Your task to perform on an android device: Search for "alienware area 51" on costco, select the first entry, add it to the cart, then select checkout. Image 0: 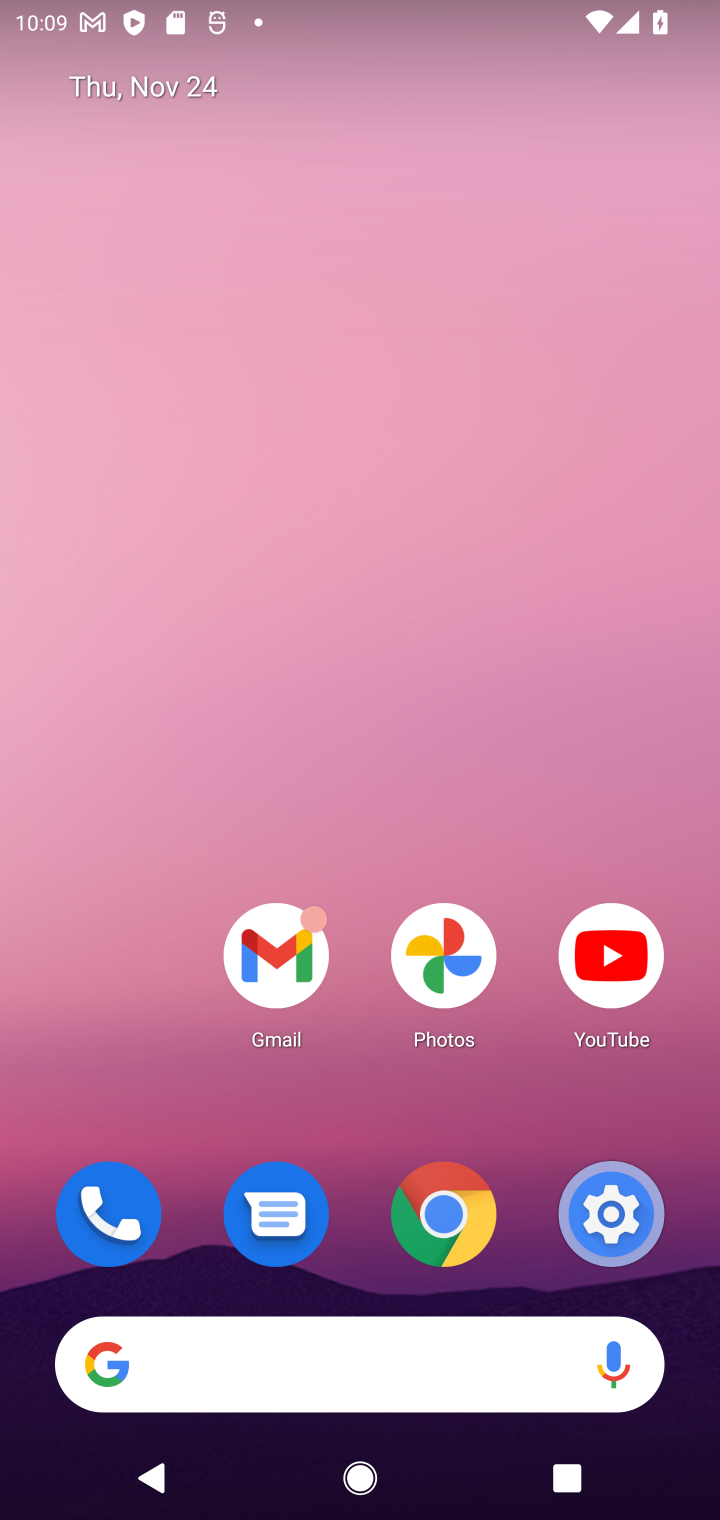
Step 0: click (207, 1359)
Your task to perform on an android device: Search for "alienware area 51" on costco, select the first entry, add it to the cart, then select checkout. Image 1: 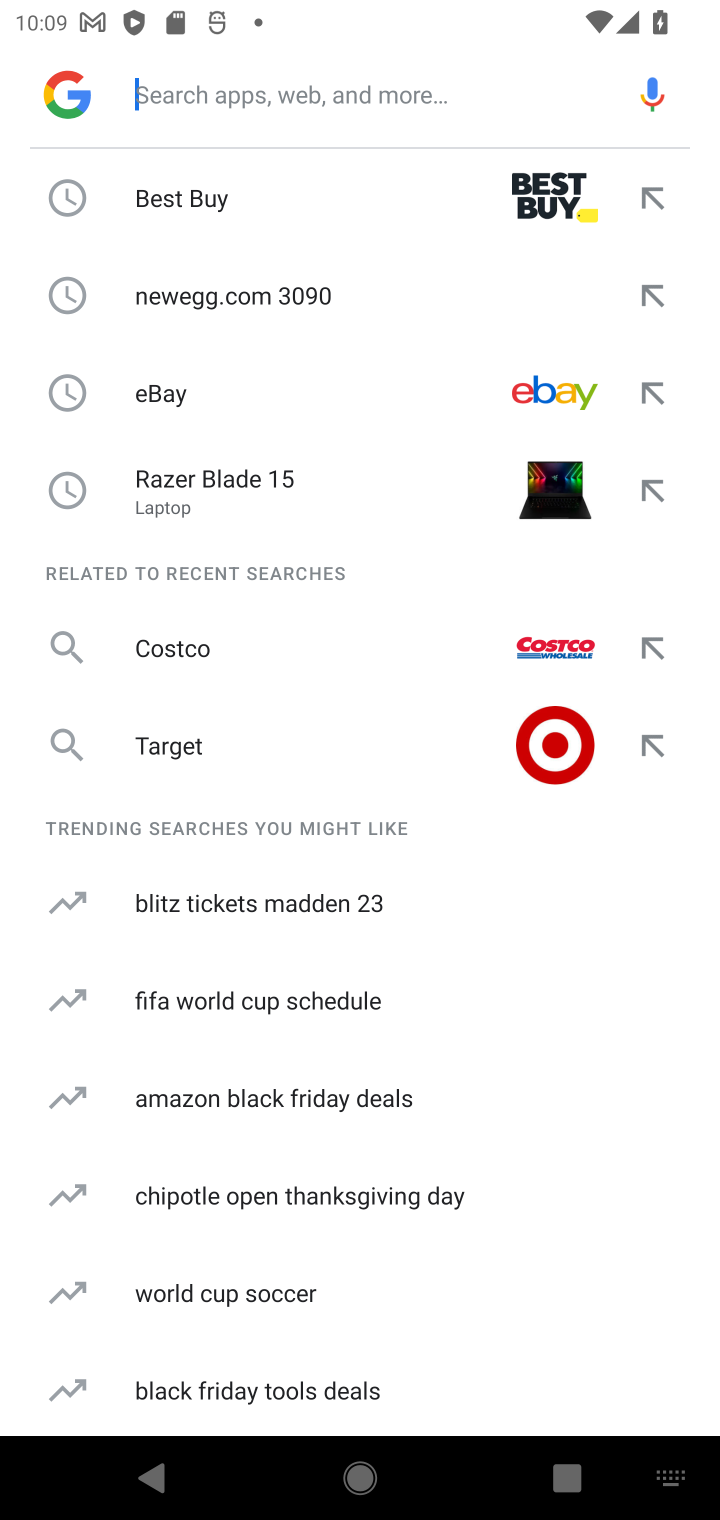
Step 1: type "costco.com"
Your task to perform on an android device: Search for "alienware area 51" on costco, select the first entry, add it to the cart, then select checkout. Image 2: 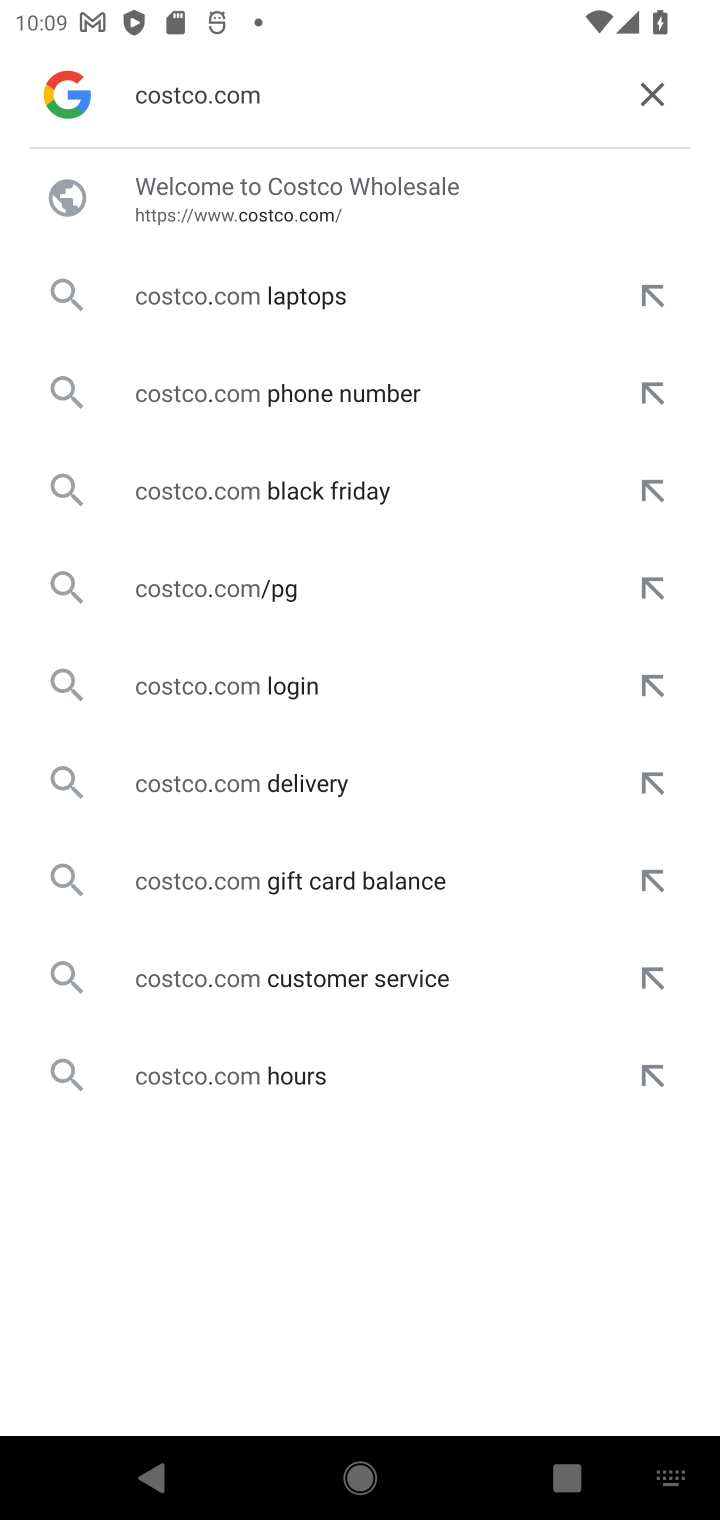
Step 2: click (268, 223)
Your task to perform on an android device: Search for "alienware area 51" on costco, select the first entry, add it to the cart, then select checkout. Image 3: 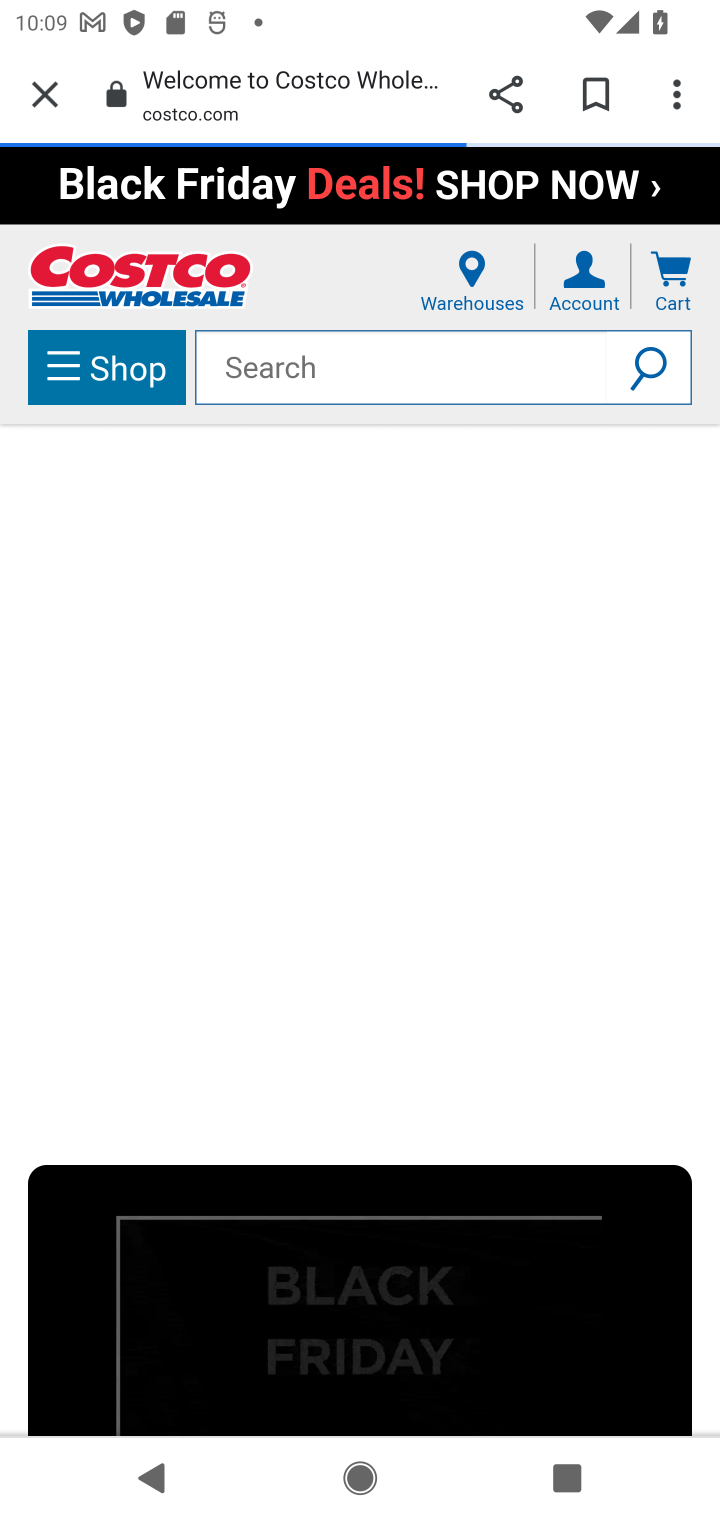
Step 3: click (268, 383)
Your task to perform on an android device: Search for "alienware area 51" on costco, select the first entry, add it to the cart, then select checkout. Image 4: 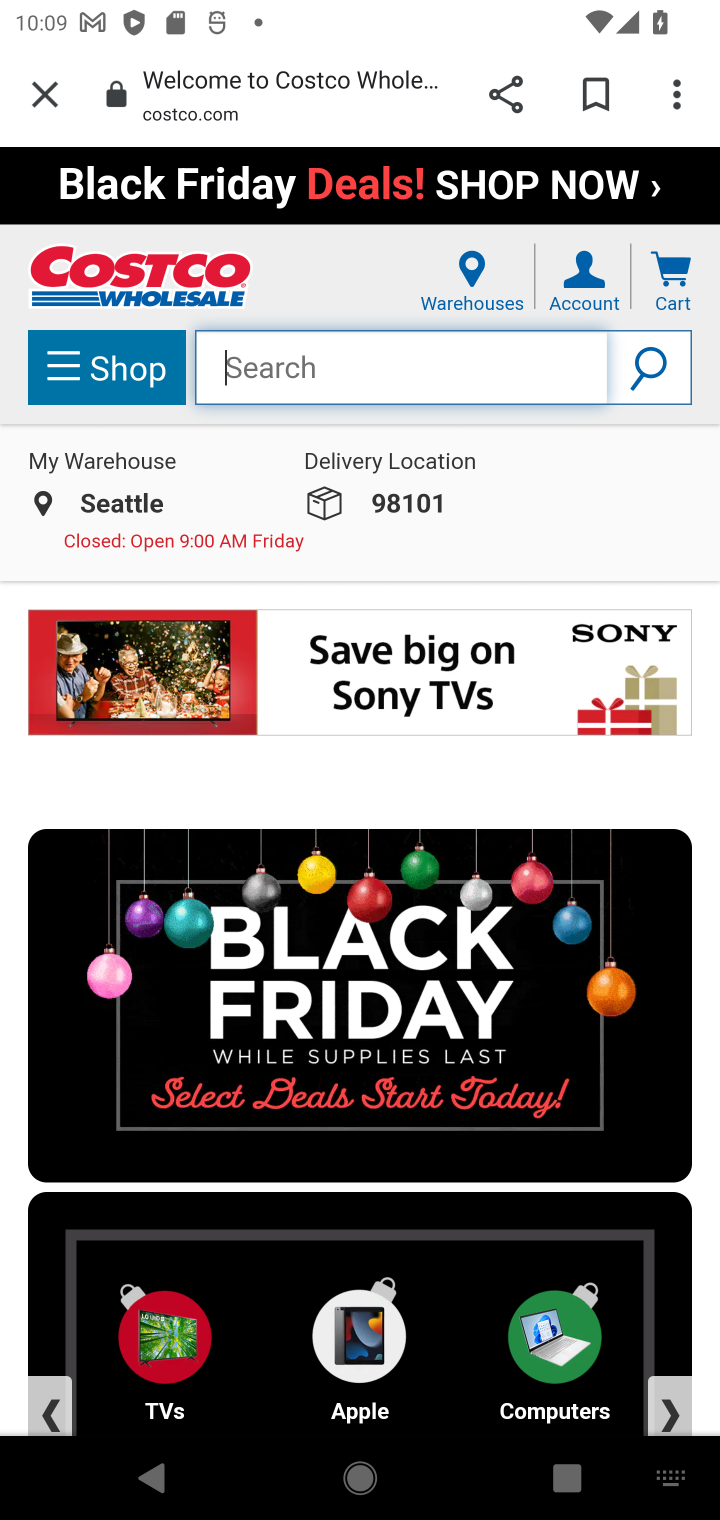
Step 4: type "alienware area 51"
Your task to perform on an android device: Search for "alienware area 51" on costco, select the first entry, add it to the cart, then select checkout. Image 5: 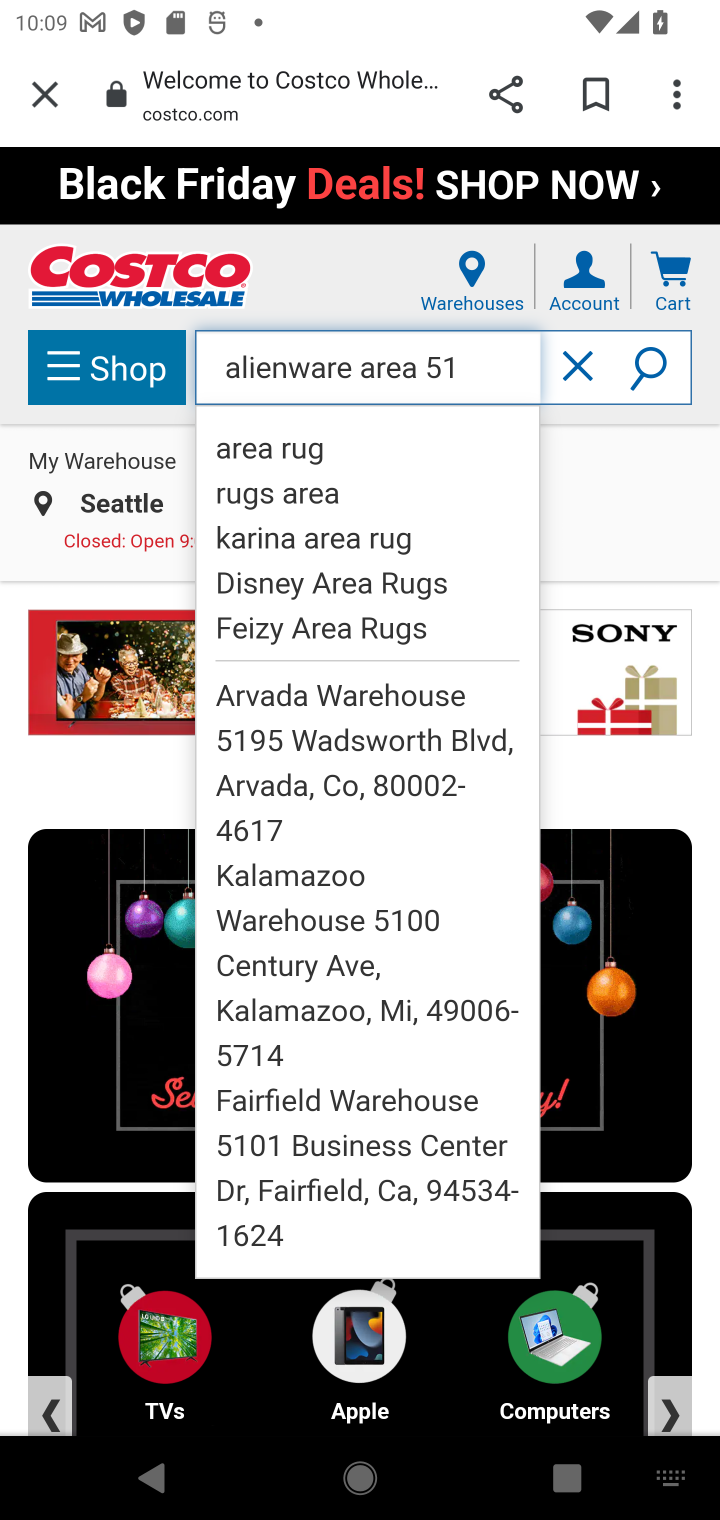
Step 5: click (657, 371)
Your task to perform on an android device: Search for "alienware area 51" on costco, select the first entry, add it to the cart, then select checkout. Image 6: 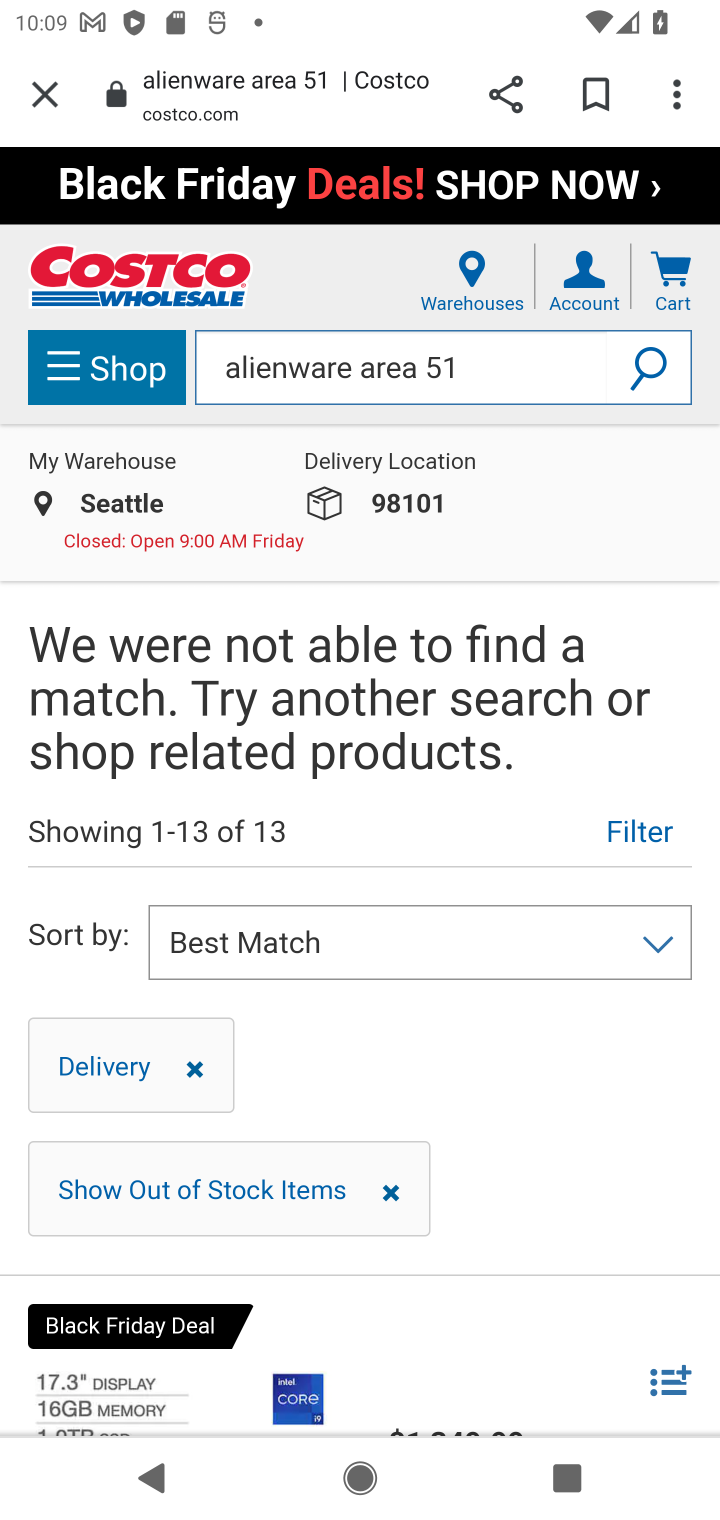
Step 6: click (397, 1196)
Your task to perform on an android device: Search for "alienware area 51" on costco, select the first entry, add it to the cart, then select checkout. Image 7: 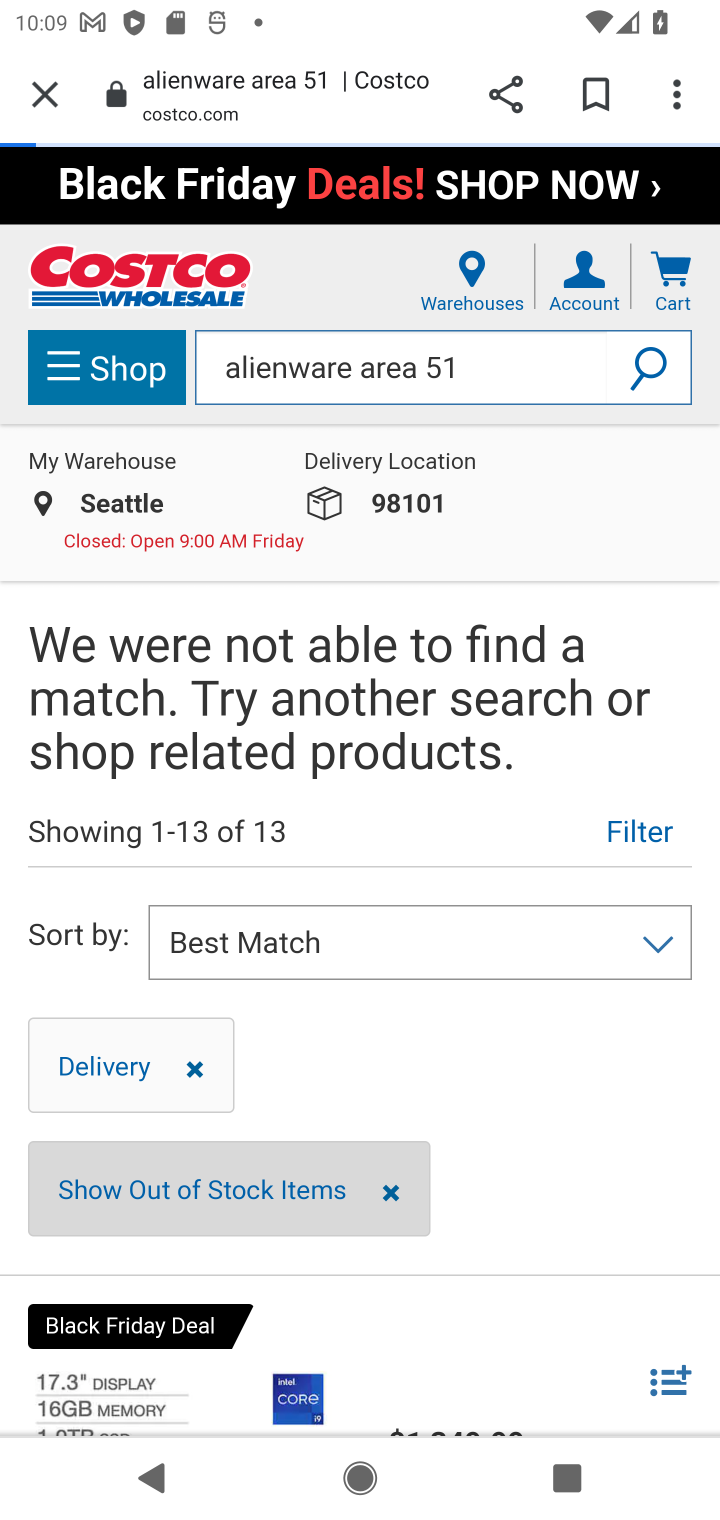
Step 7: click (202, 1075)
Your task to perform on an android device: Search for "alienware area 51" on costco, select the first entry, add it to the cart, then select checkout. Image 8: 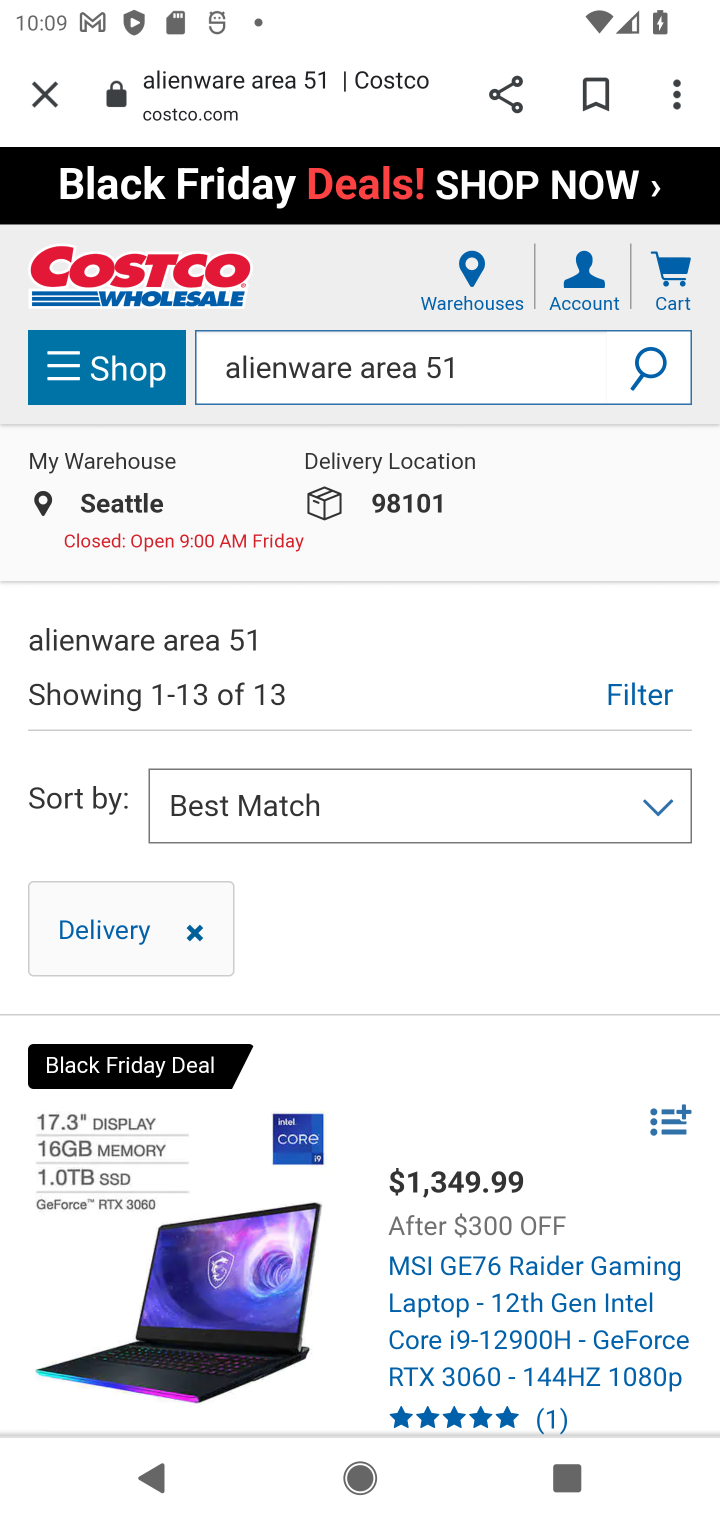
Step 8: click (327, 1262)
Your task to perform on an android device: Search for "alienware area 51" on costco, select the first entry, add it to the cart, then select checkout. Image 9: 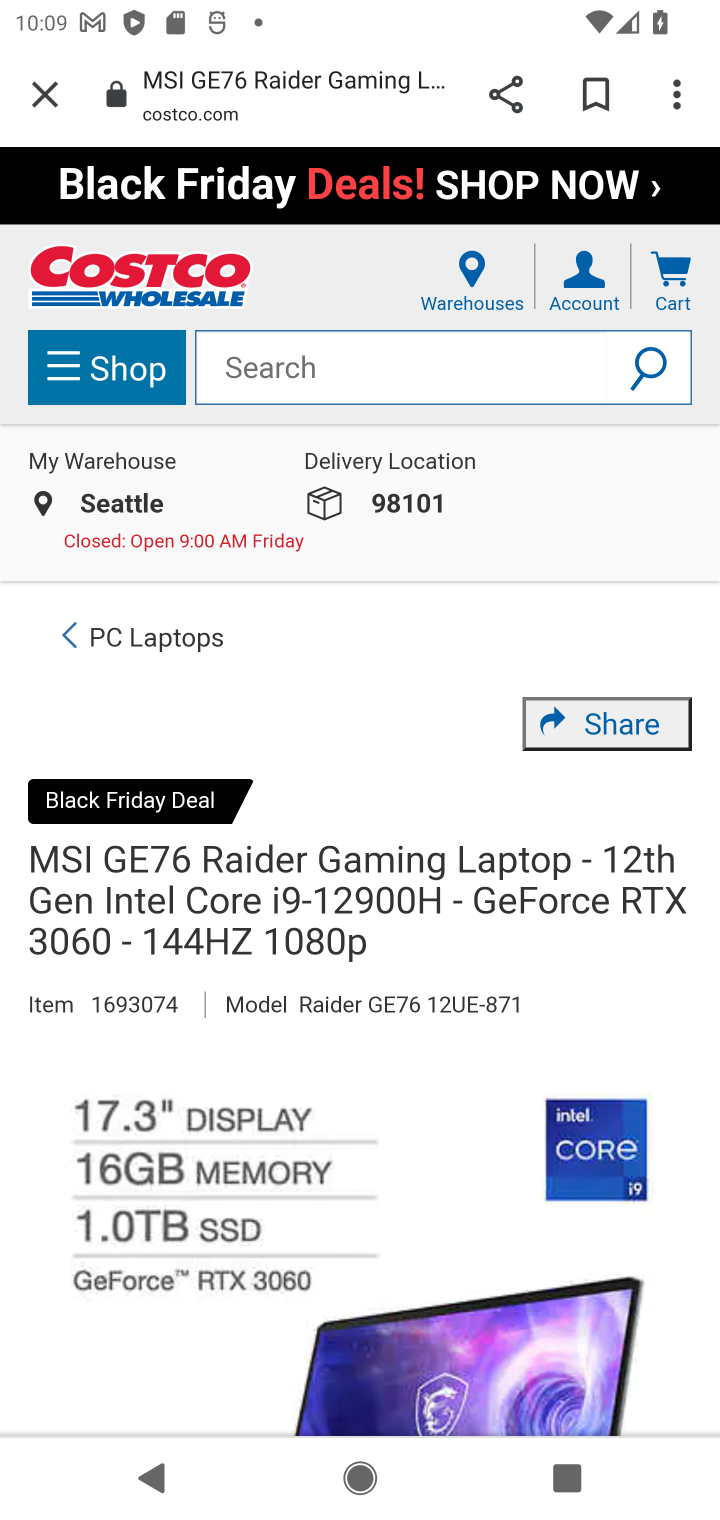
Step 9: drag from (431, 1113) to (410, 402)
Your task to perform on an android device: Search for "alienware area 51" on costco, select the first entry, add it to the cart, then select checkout. Image 10: 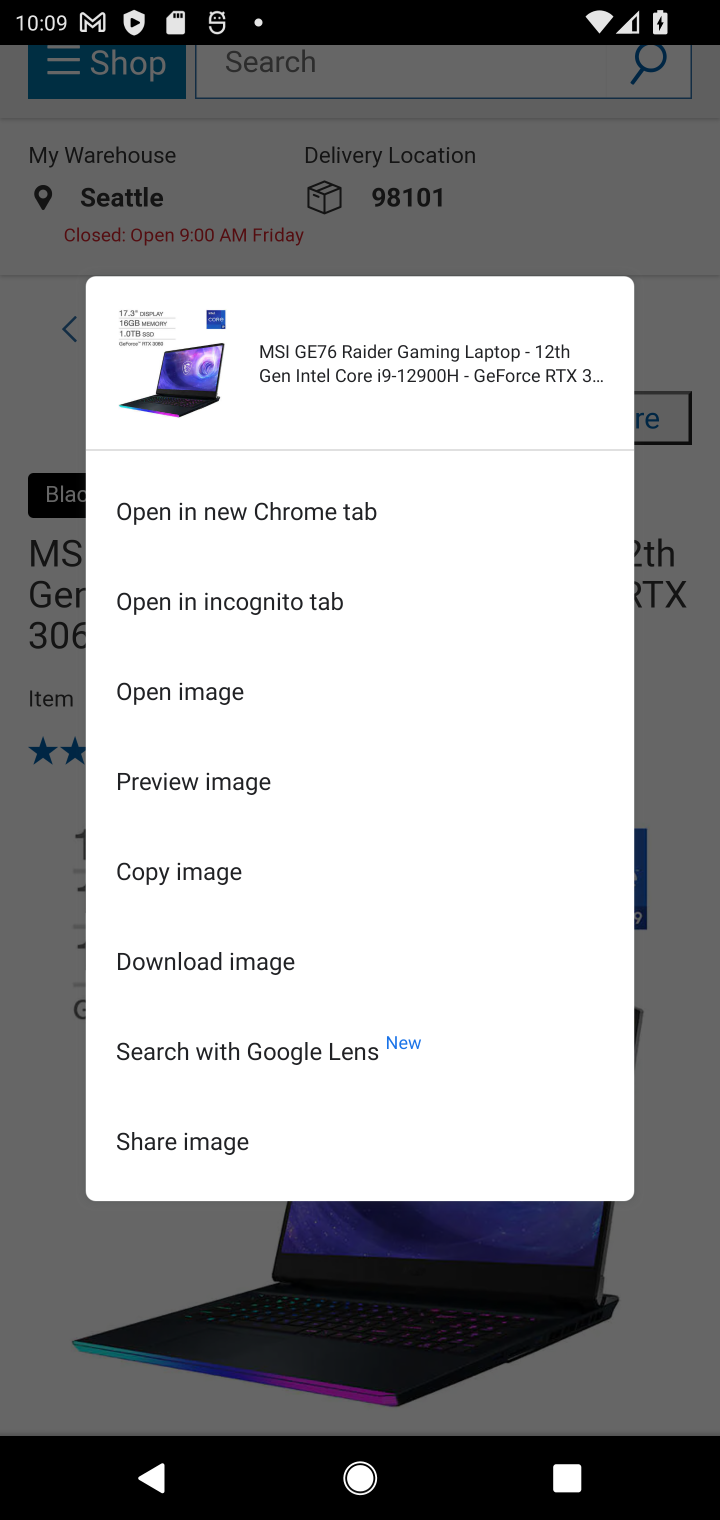
Step 10: click (709, 1081)
Your task to perform on an android device: Search for "alienware area 51" on costco, select the first entry, add it to the cart, then select checkout. Image 11: 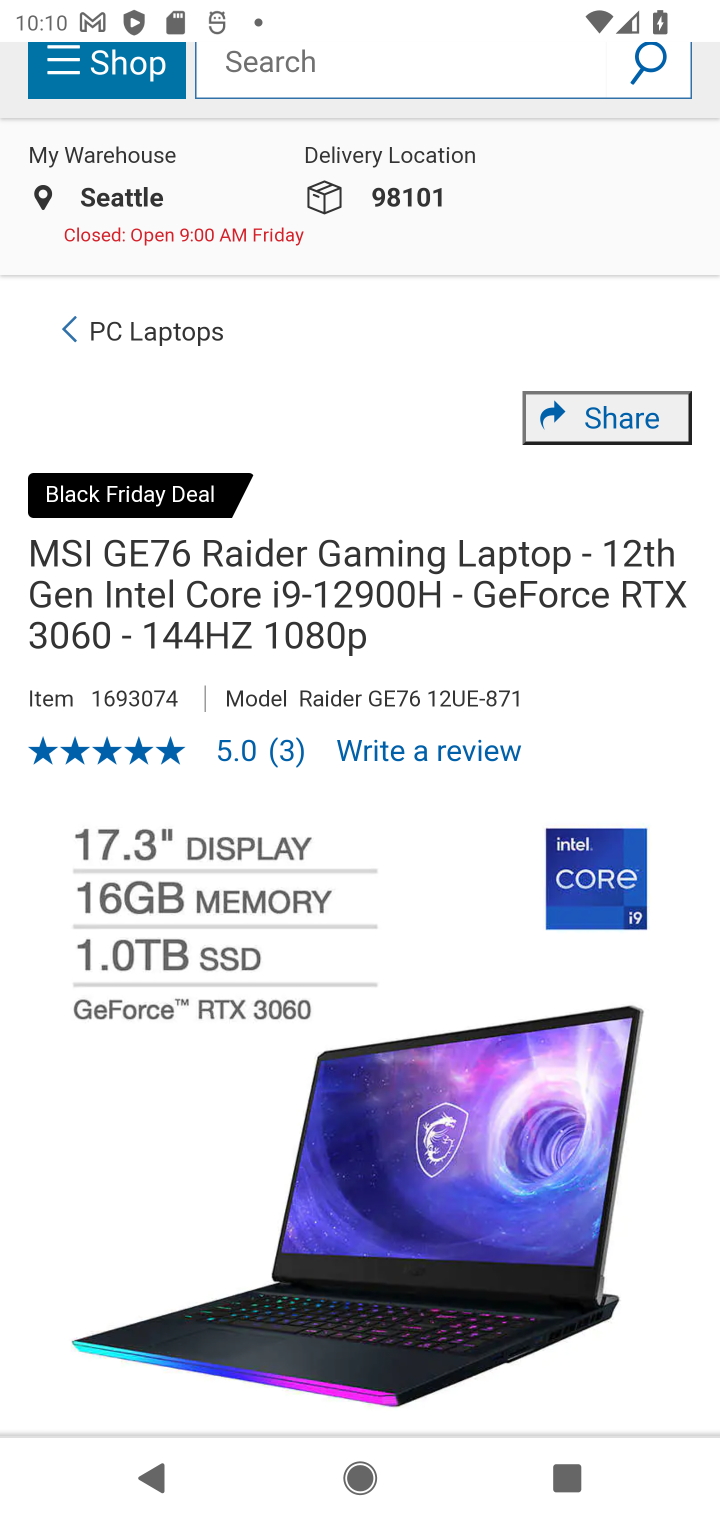
Step 11: drag from (526, 1294) to (435, 511)
Your task to perform on an android device: Search for "alienware area 51" on costco, select the first entry, add it to the cart, then select checkout. Image 12: 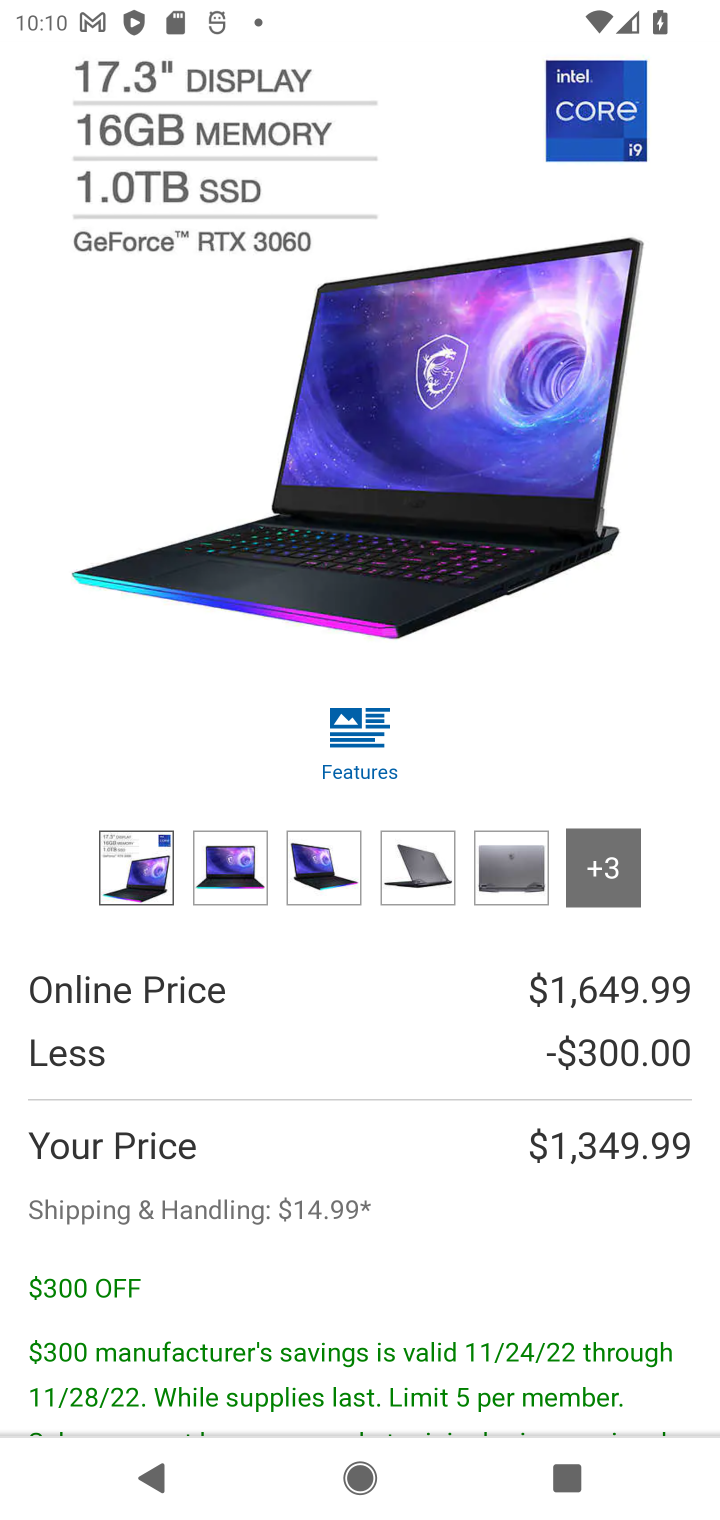
Step 12: drag from (407, 1180) to (424, 252)
Your task to perform on an android device: Search for "alienware area 51" on costco, select the first entry, add it to the cart, then select checkout. Image 13: 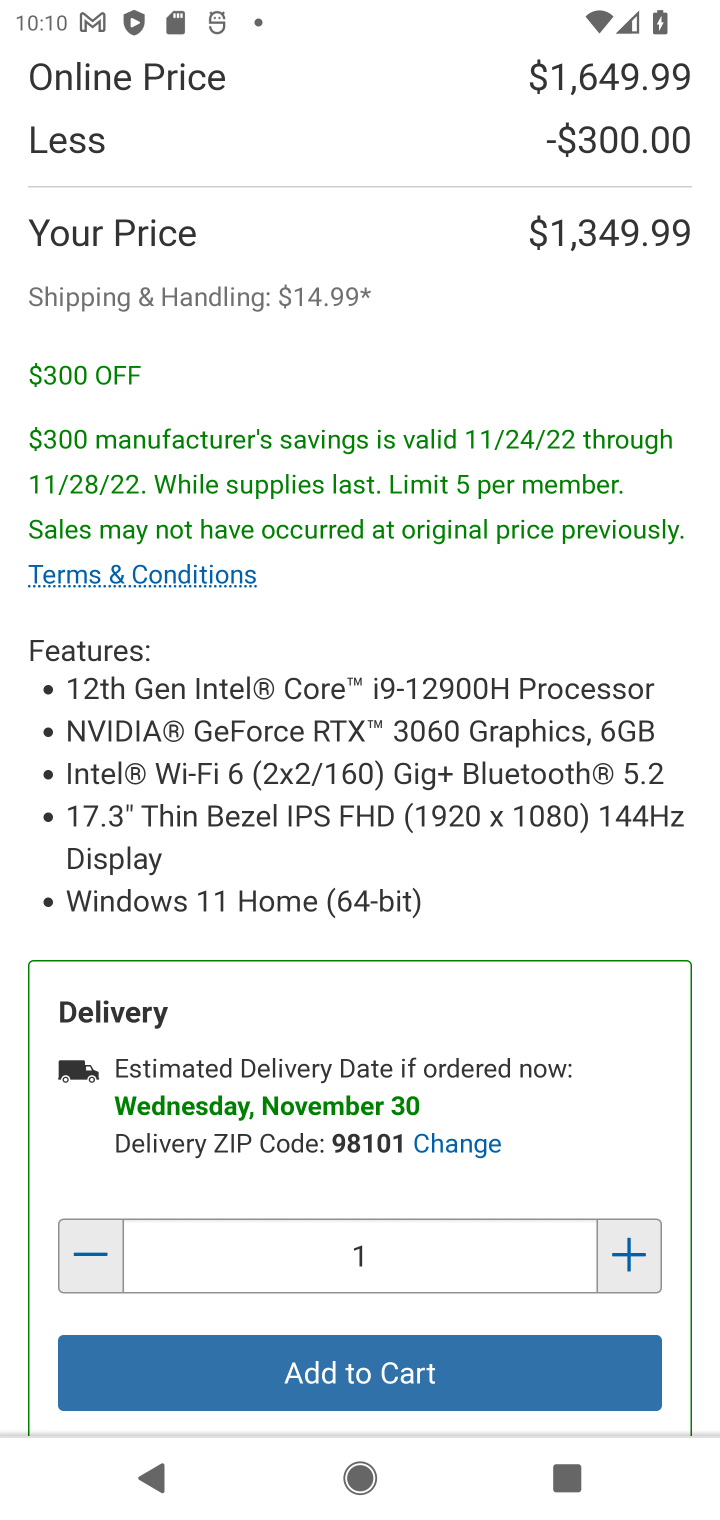
Step 13: click (321, 1346)
Your task to perform on an android device: Search for "alienware area 51" on costco, select the first entry, add it to the cart, then select checkout. Image 14: 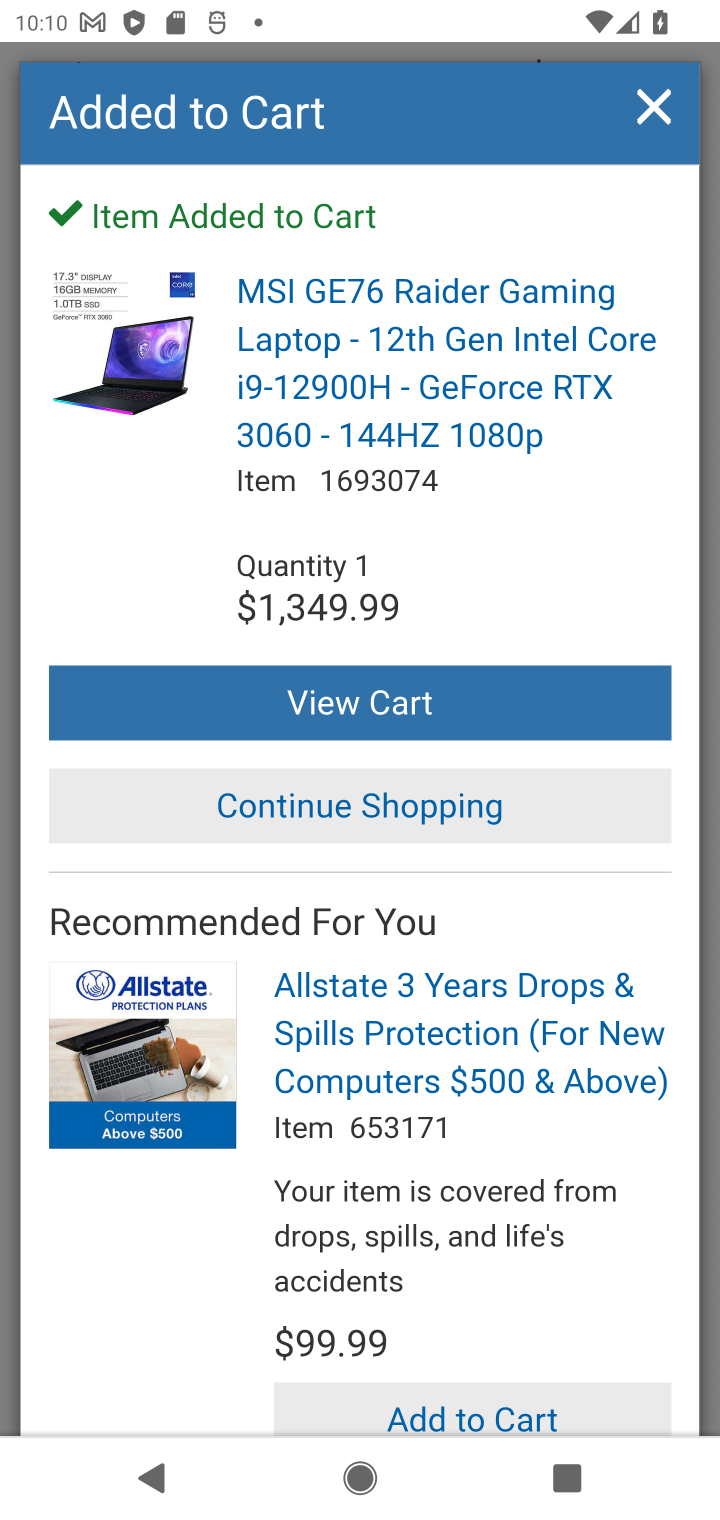
Step 14: task complete